Your task to perform on an android device: What's on my calendar today? Image 0: 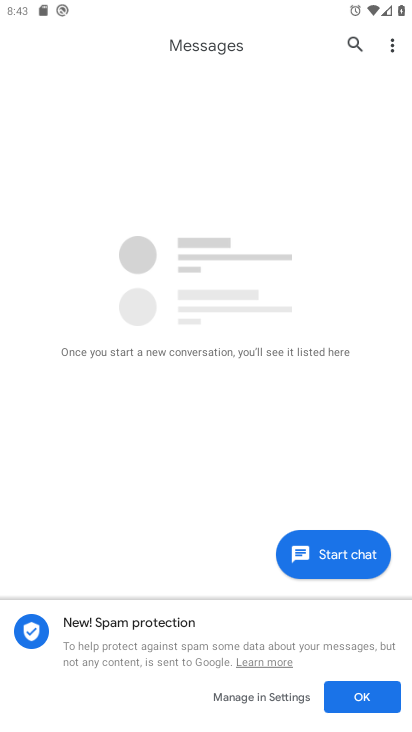
Step 0: press home button
Your task to perform on an android device: What's on my calendar today? Image 1: 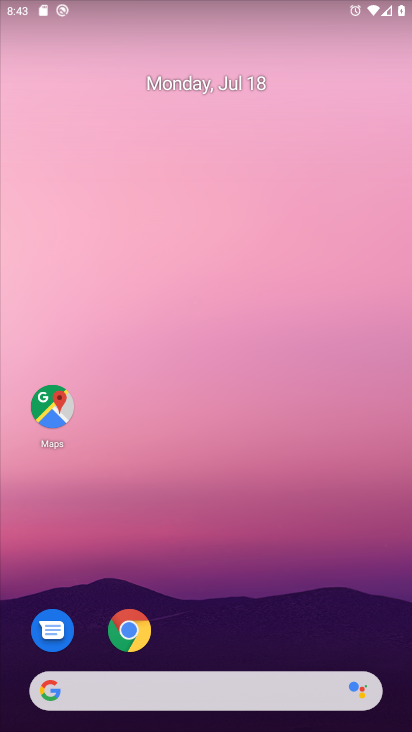
Step 1: drag from (255, 613) to (266, 108)
Your task to perform on an android device: What's on my calendar today? Image 2: 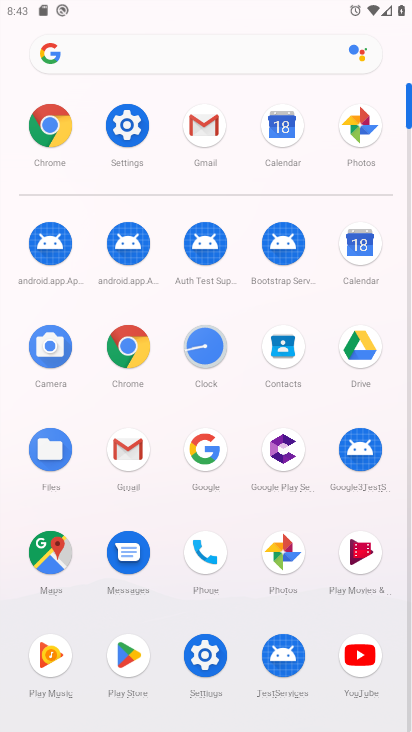
Step 2: click (365, 266)
Your task to perform on an android device: What's on my calendar today? Image 3: 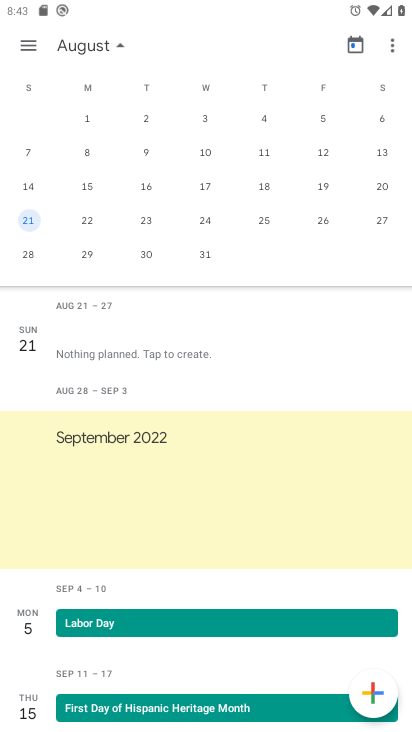
Step 3: click (107, 49)
Your task to perform on an android device: What's on my calendar today? Image 4: 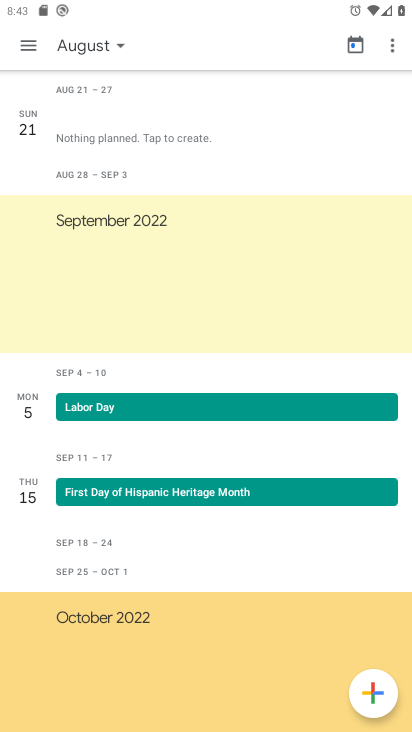
Step 4: click (107, 49)
Your task to perform on an android device: What's on my calendar today? Image 5: 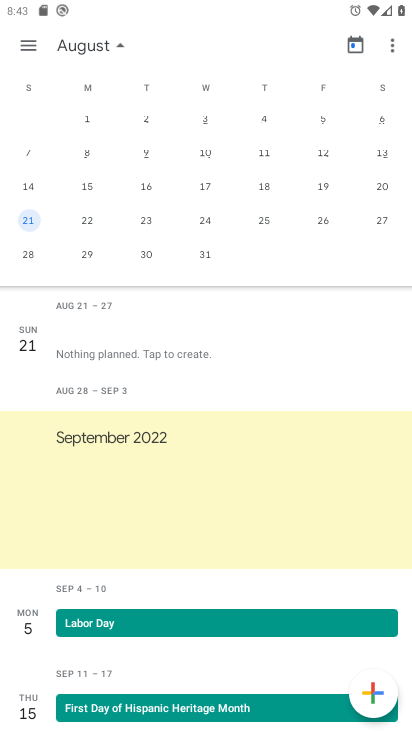
Step 5: task complete